Your task to perform on an android device: toggle data saver in the chrome app Image 0: 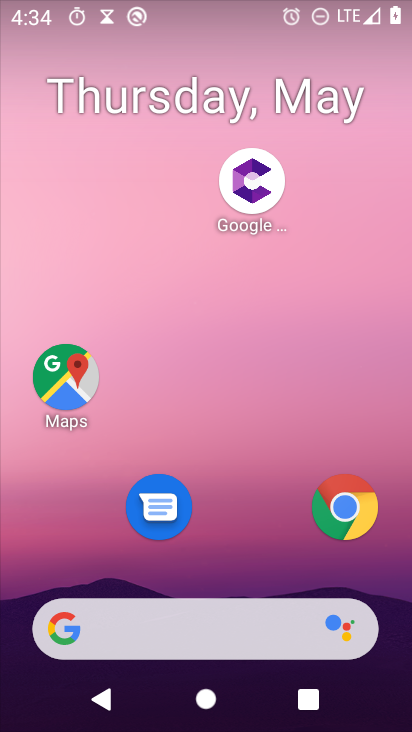
Step 0: drag from (247, 580) to (329, 580)
Your task to perform on an android device: toggle data saver in the chrome app Image 1: 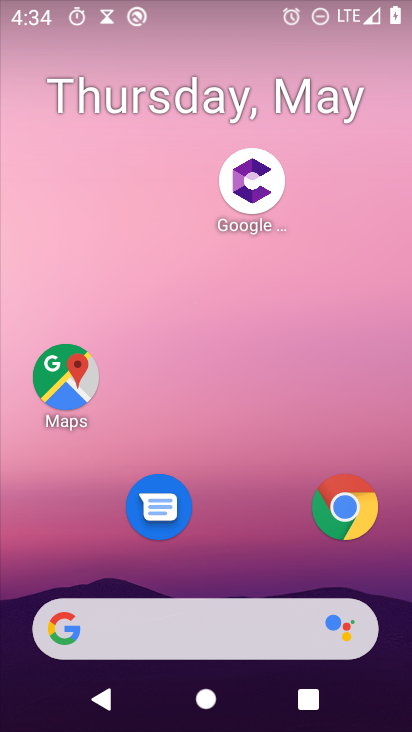
Step 1: click (346, 515)
Your task to perform on an android device: toggle data saver in the chrome app Image 2: 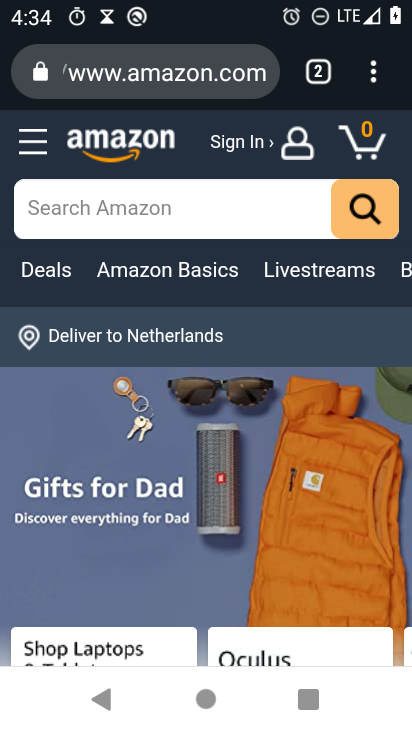
Step 2: click (375, 77)
Your task to perform on an android device: toggle data saver in the chrome app Image 3: 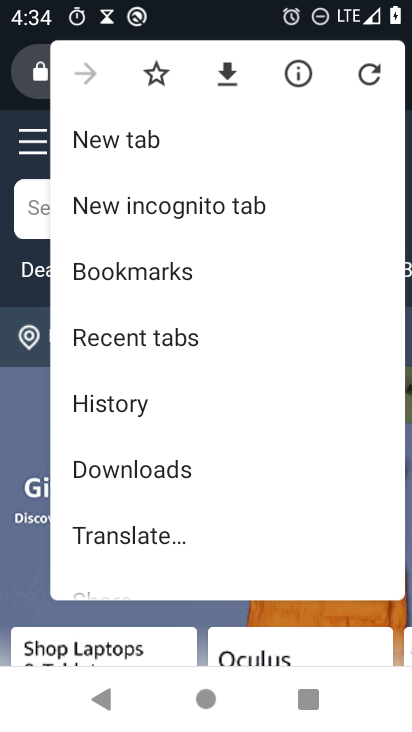
Step 3: drag from (264, 537) to (291, 130)
Your task to perform on an android device: toggle data saver in the chrome app Image 4: 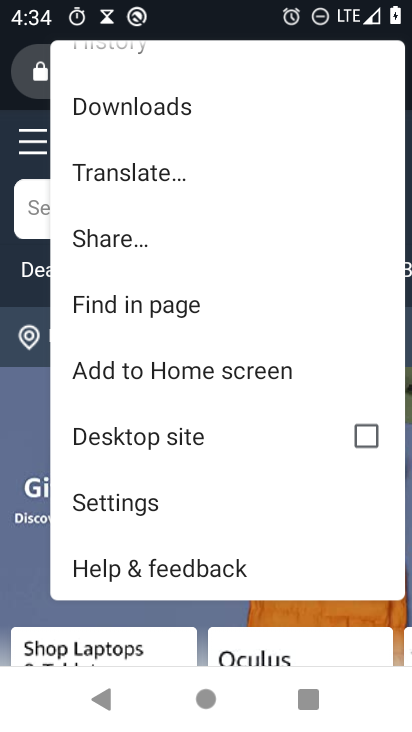
Step 4: click (129, 503)
Your task to perform on an android device: toggle data saver in the chrome app Image 5: 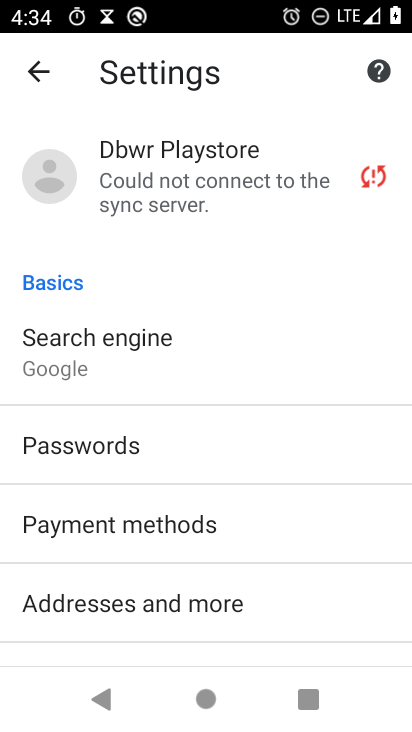
Step 5: drag from (270, 616) to (273, 81)
Your task to perform on an android device: toggle data saver in the chrome app Image 6: 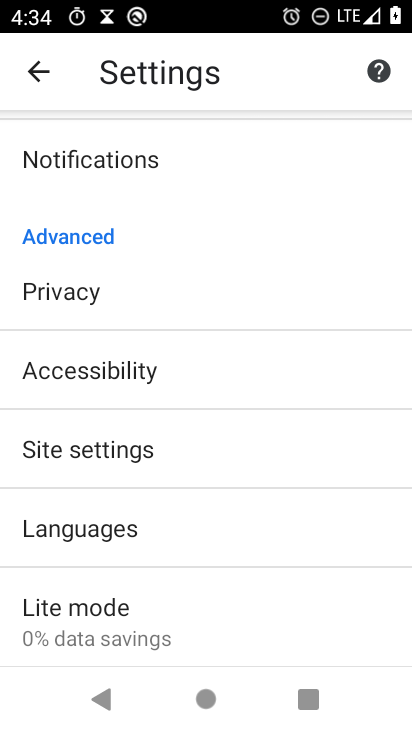
Step 6: drag from (289, 614) to (301, 90)
Your task to perform on an android device: toggle data saver in the chrome app Image 7: 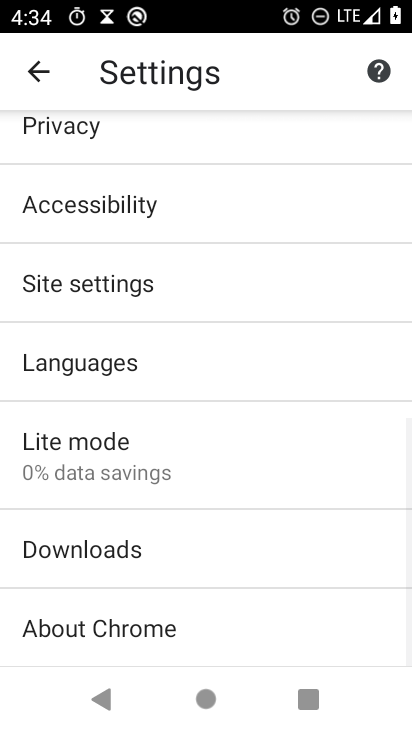
Step 7: click (201, 456)
Your task to perform on an android device: toggle data saver in the chrome app Image 8: 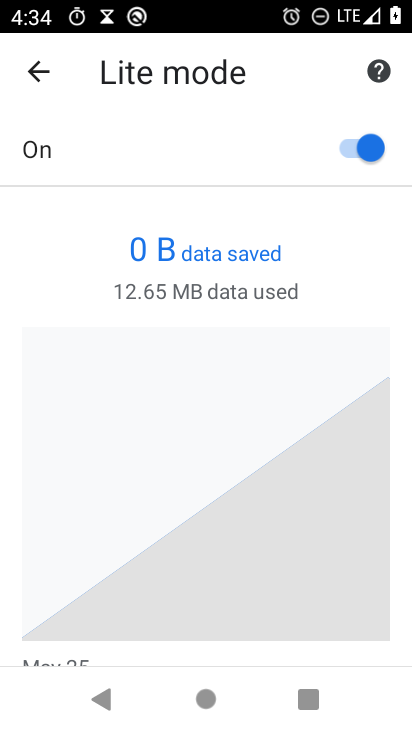
Step 8: click (346, 149)
Your task to perform on an android device: toggle data saver in the chrome app Image 9: 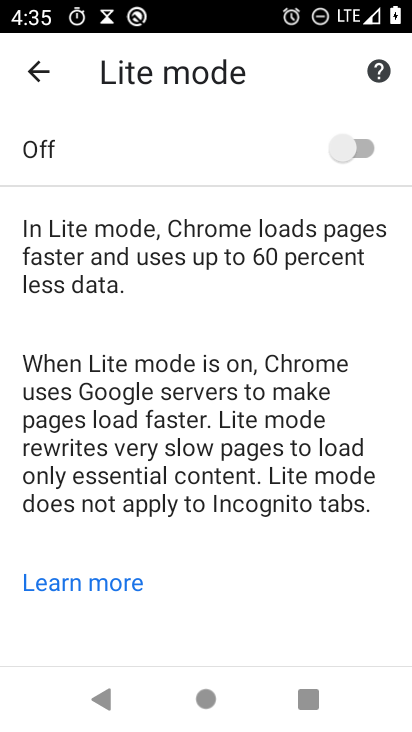
Step 9: task complete